Your task to perform on an android device: open device folders in google photos Image 0: 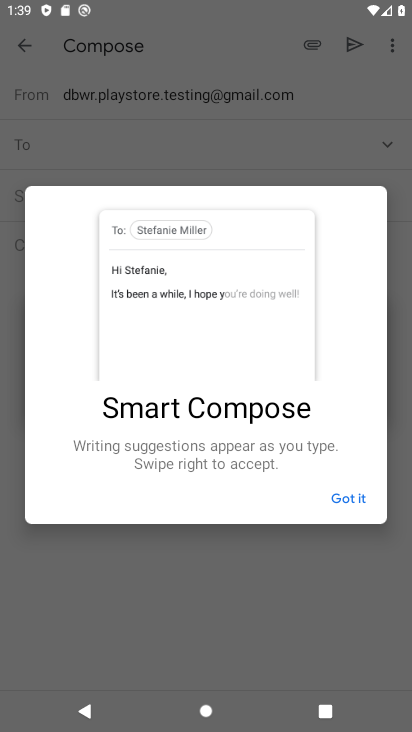
Step 0: press home button
Your task to perform on an android device: open device folders in google photos Image 1: 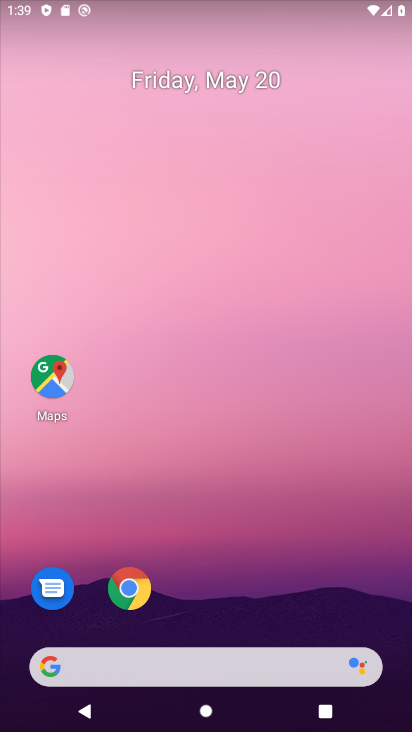
Step 1: drag from (176, 658) to (145, 141)
Your task to perform on an android device: open device folders in google photos Image 2: 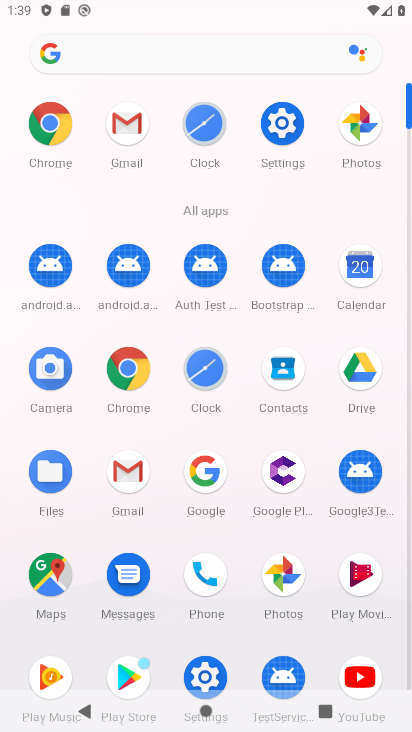
Step 2: click (285, 566)
Your task to perform on an android device: open device folders in google photos Image 3: 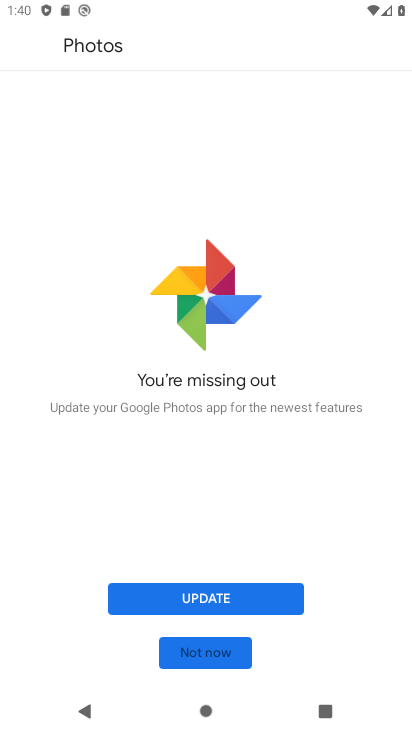
Step 3: click (193, 653)
Your task to perform on an android device: open device folders in google photos Image 4: 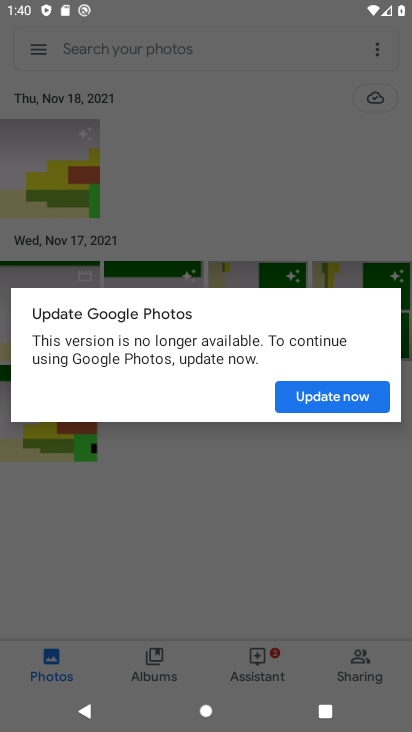
Step 4: click (325, 406)
Your task to perform on an android device: open device folders in google photos Image 5: 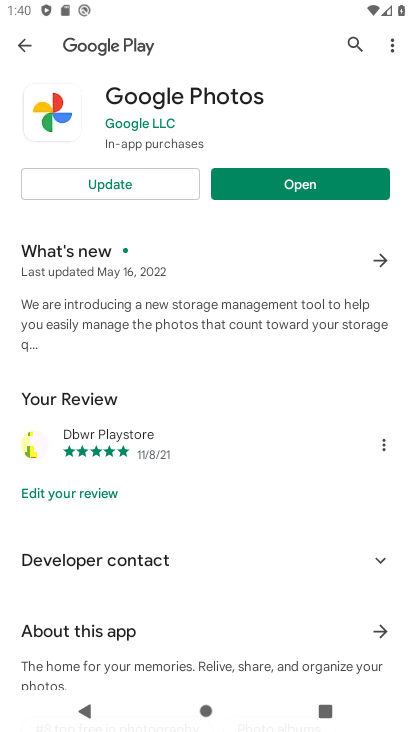
Step 5: click (164, 192)
Your task to perform on an android device: open device folders in google photos Image 6: 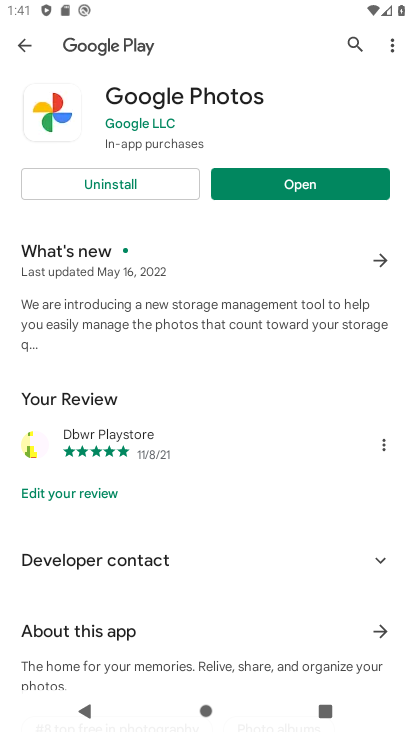
Step 6: click (239, 188)
Your task to perform on an android device: open device folders in google photos Image 7: 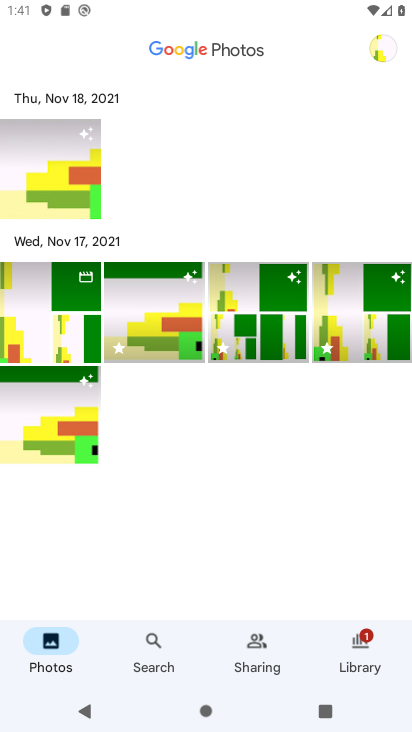
Step 7: task complete